Your task to perform on an android device: turn on priority inbox in the gmail app Image 0: 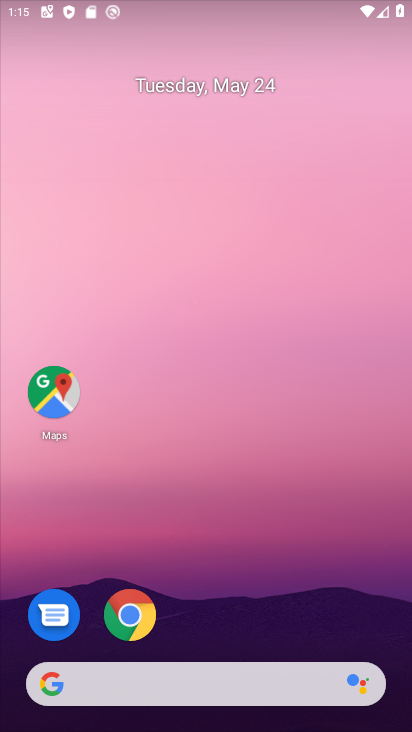
Step 0: press home button
Your task to perform on an android device: turn on priority inbox in the gmail app Image 1: 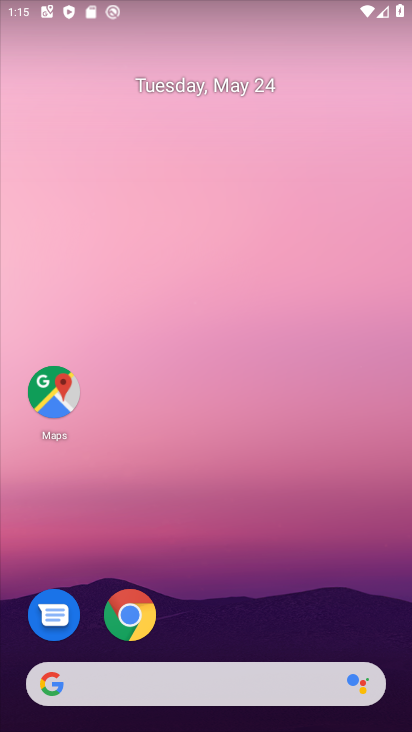
Step 1: press home button
Your task to perform on an android device: turn on priority inbox in the gmail app Image 2: 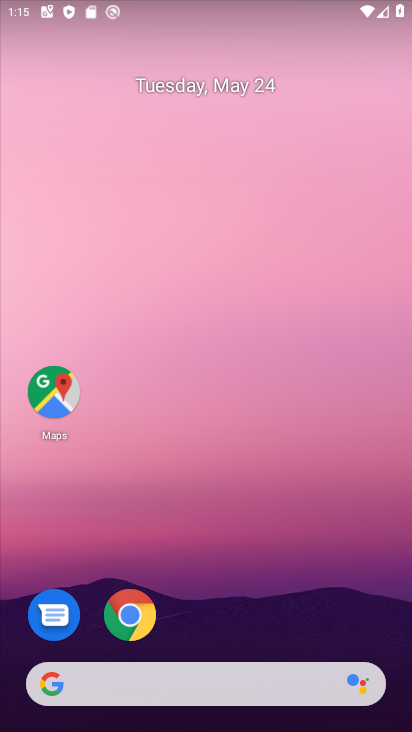
Step 2: drag from (219, 638) to (219, 61)
Your task to perform on an android device: turn on priority inbox in the gmail app Image 3: 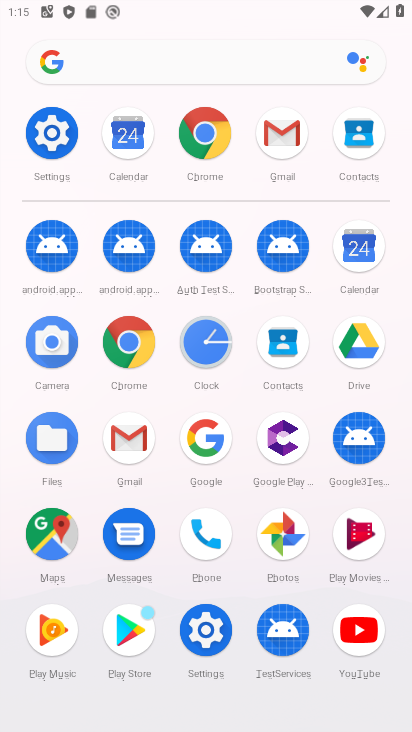
Step 3: click (278, 142)
Your task to perform on an android device: turn on priority inbox in the gmail app Image 4: 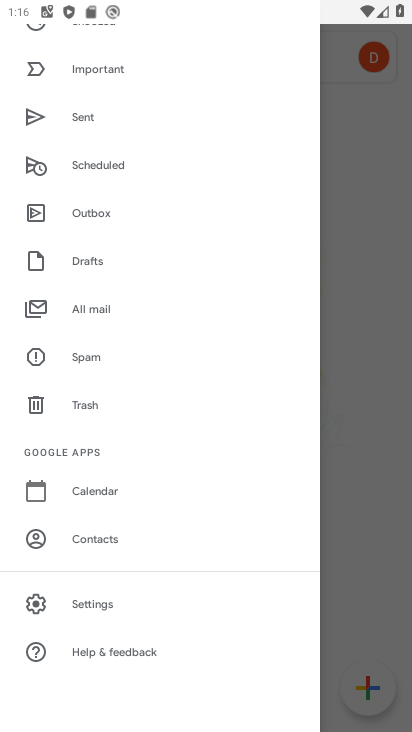
Step 4: click (123, 600)
Your task to perform on an android device: turn on priority inbox in the gmail app Image 5: 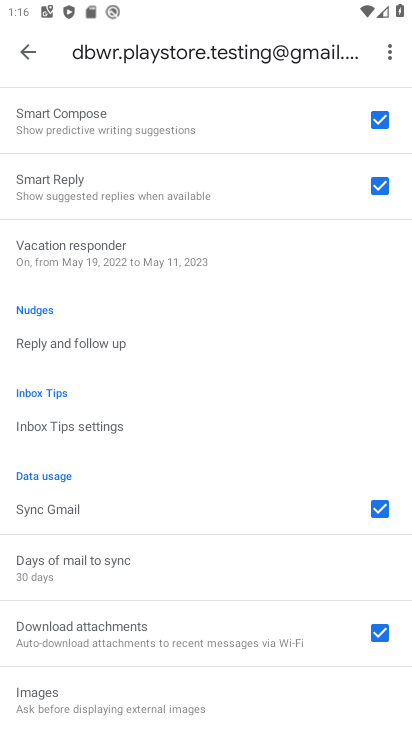
Step 5: drag from (117, 644) to (132, 219)
Your task to perform on an android device: turn on priority inbox in the gmail app Image 6: 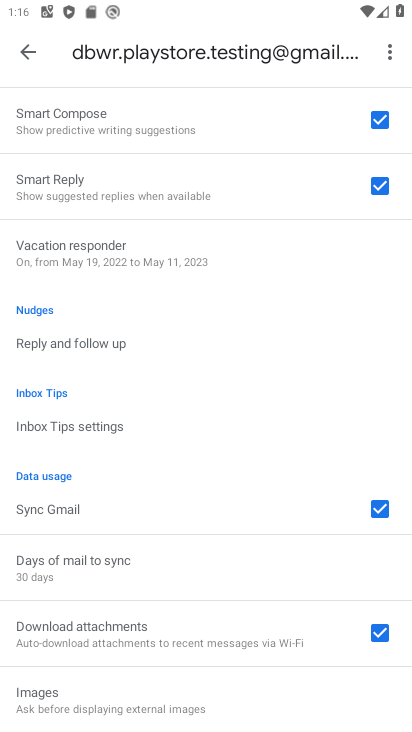
Step 6: drag from (116, 141) to (149, 632)
Your task to perform on an android device: turn on priority inbox in the gmail app Image 7: 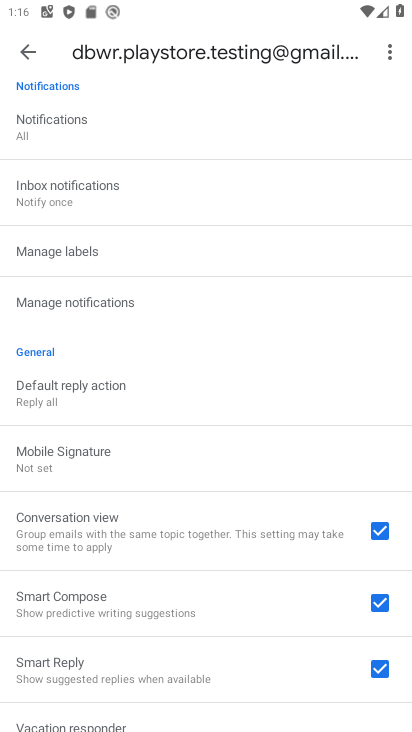
Step 7: drag from (136, 139) to (113, 715)
Your task to perform on an android device: turn on priority inbox in the gmail app Image 8: 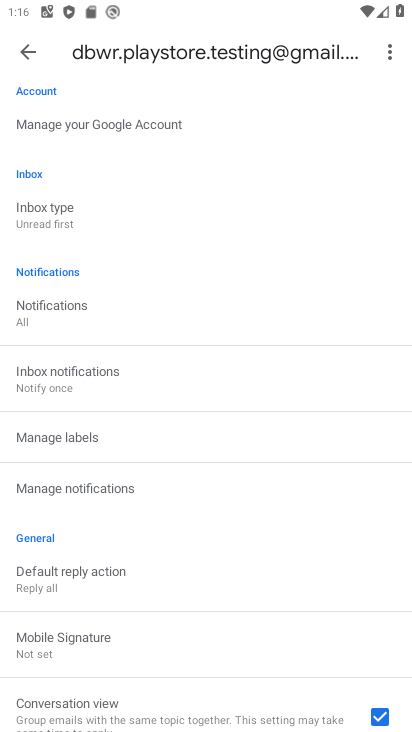
Step 8: drag from (105, 232) to (139, 725)
Your task to perform on an android device: turn on priority inbox in the gmail app Image 9: 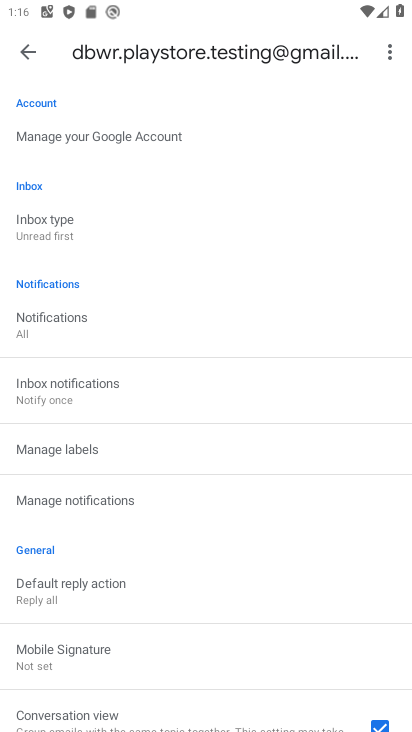
Step 9: click (79, 226)
Your task to perform on an android device: turn on priority inbox in the gmail app Image 10: 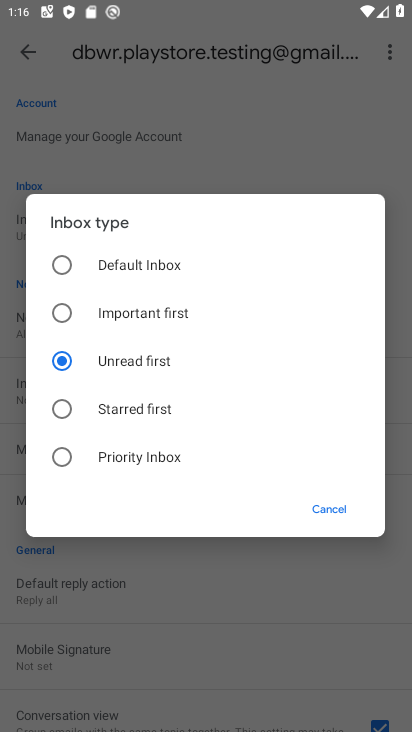
Step 10: click (59, 260)
Your task to perform on an android device: turn on priority inbox in the gmail app Image 11: 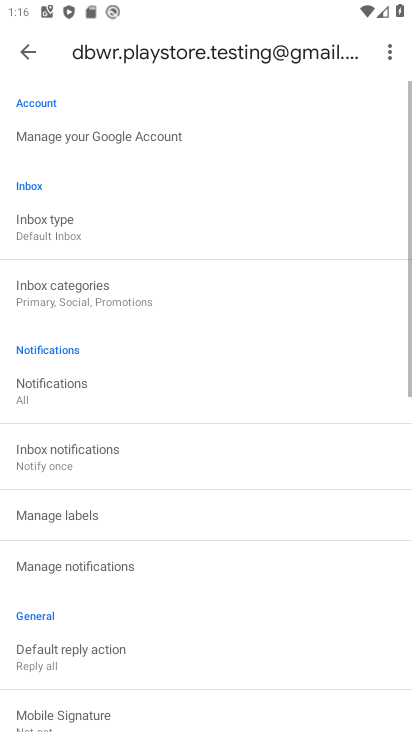
Step 11: task complete